Your task to perform on an android device: Open my contact list Image 0: 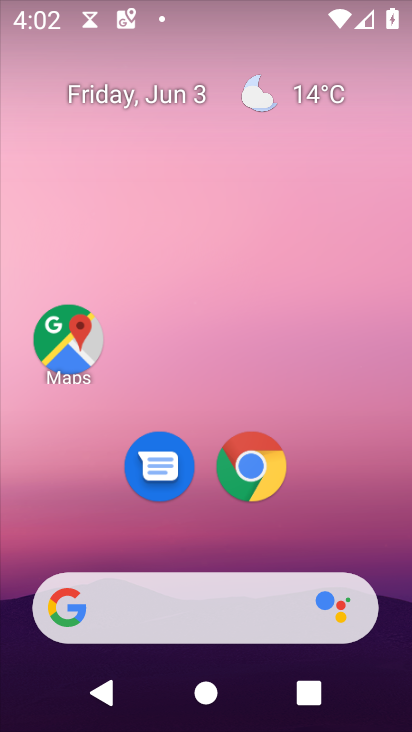
Step 0: drag from (322, 506) to (237, 49)
Your task to perform on an android device: Open my contact list Image 1: 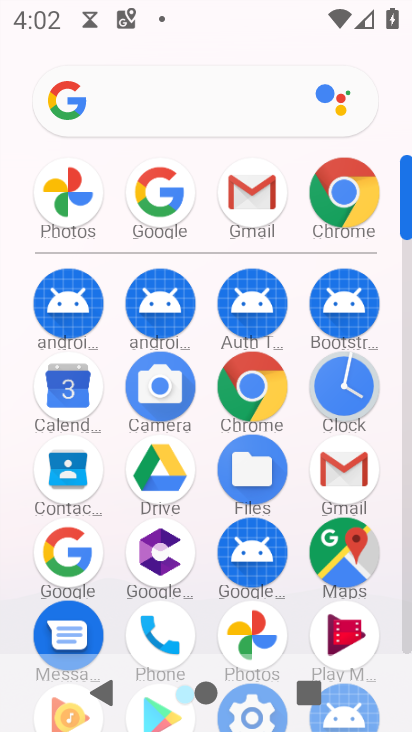
Step 1: click (79, 479)
Your task to perform on an android device: Open my contact list Image 2: 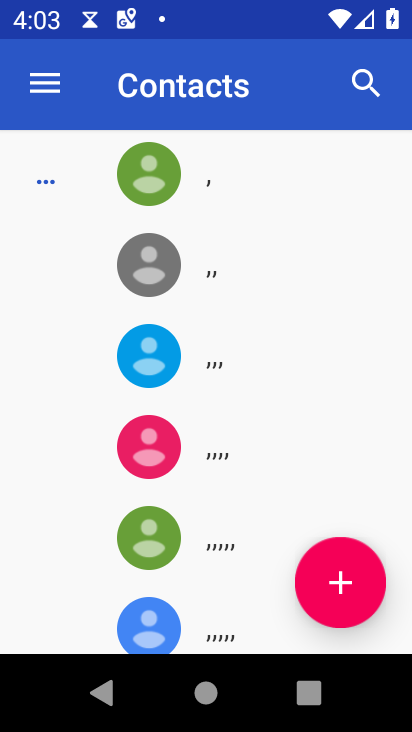
Step 2: drag from (260, 576) to (252, 79)
Your task to perform on an android device: Open my contact list Image 3: 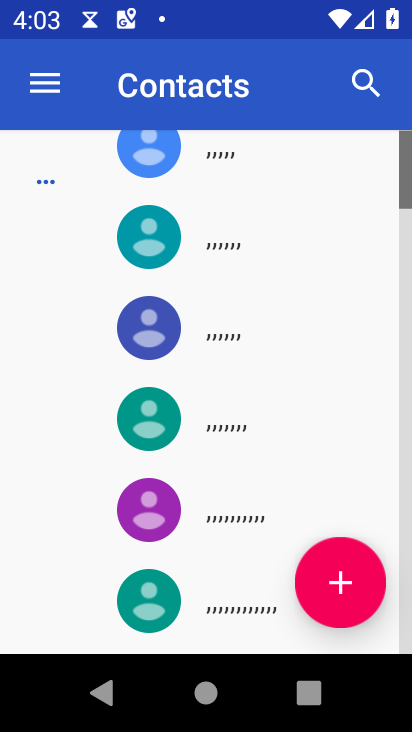
Step 3: drag from (235, 543) to (251, 107)
Your task to perform on an android device: Open my contact list Image 4: 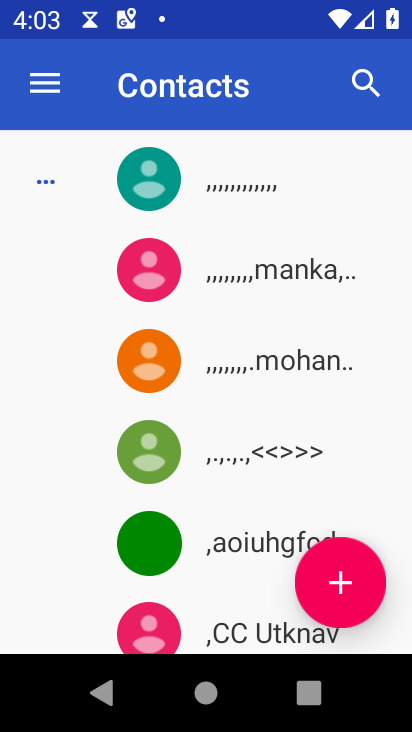
Step 4: click (251, 107)
Your task to perform on an android device: Open my contact list Image 5: 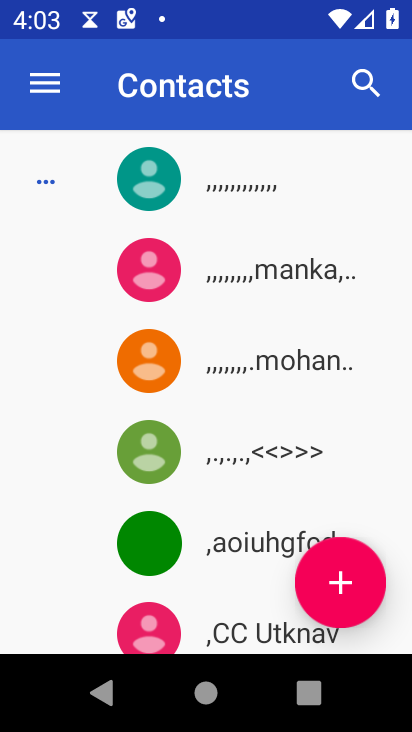
Step 5: task complete